Your task to perform on an android device: toggle improve location accuracy Image 0: 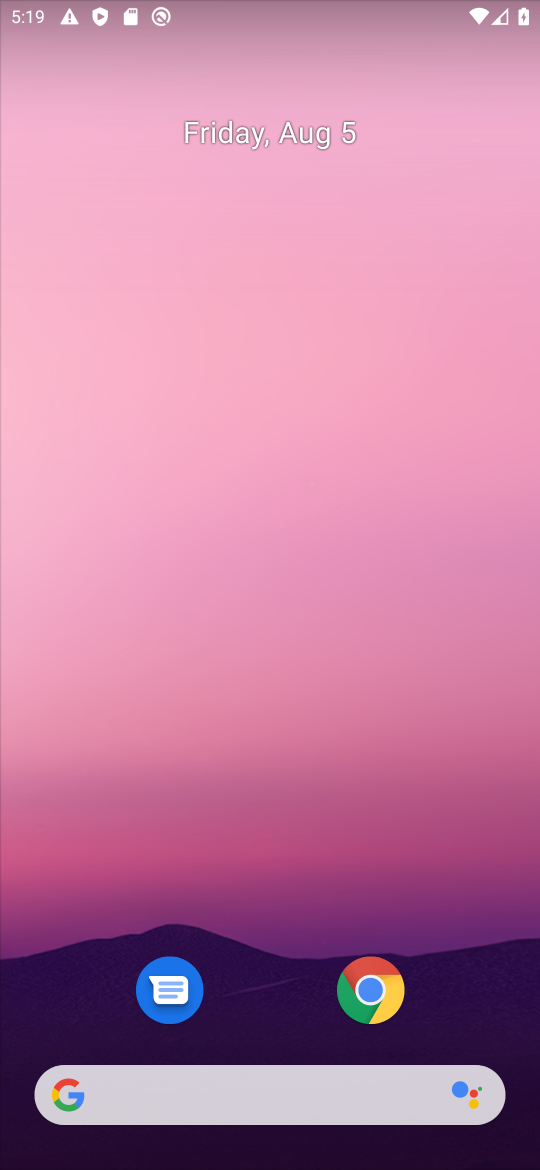
Step 0: press home button
Your task to perform on an android device: toggle improve location accuracy Image 1: 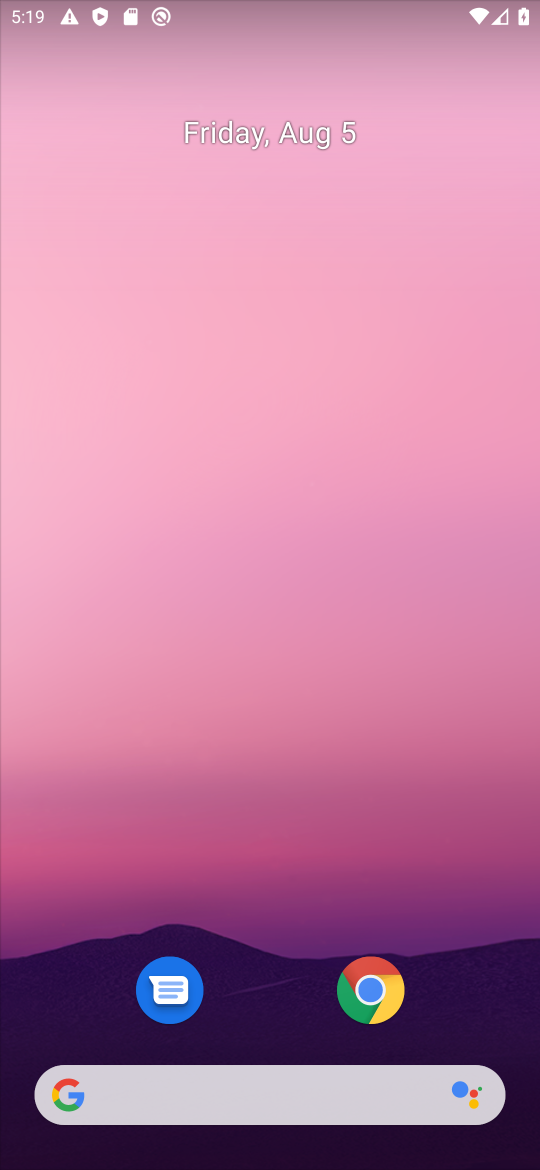
Step 1: drag from (245, 1001) to (245, 461)
Your task to perform on an android device: toggle improve location accuracy Image 2: 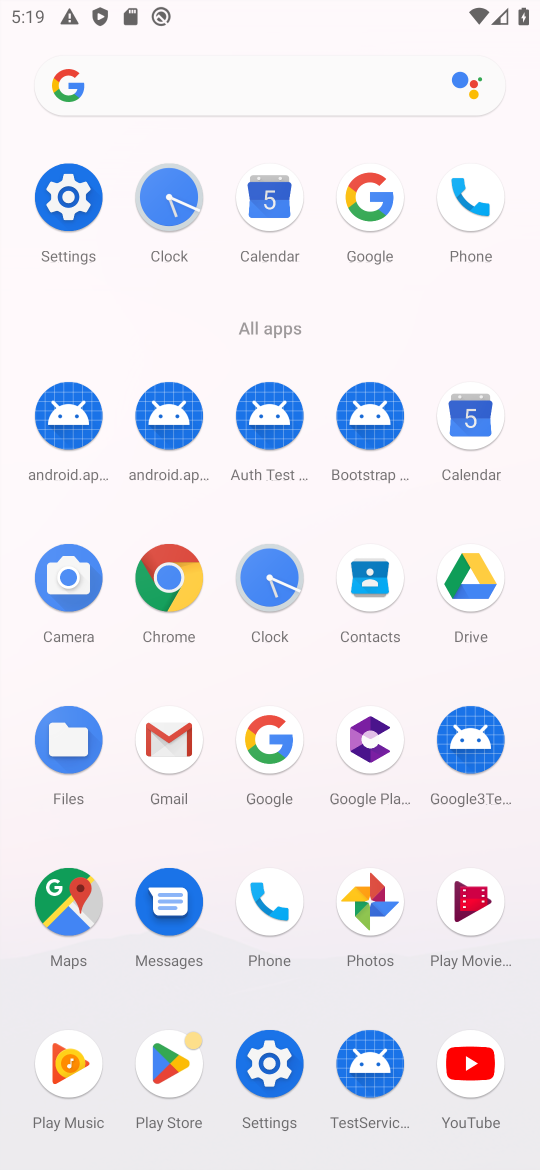
Step 2: click (73, 205)
Your task to perform on an android device: toggle improve location accuracy Image 3: 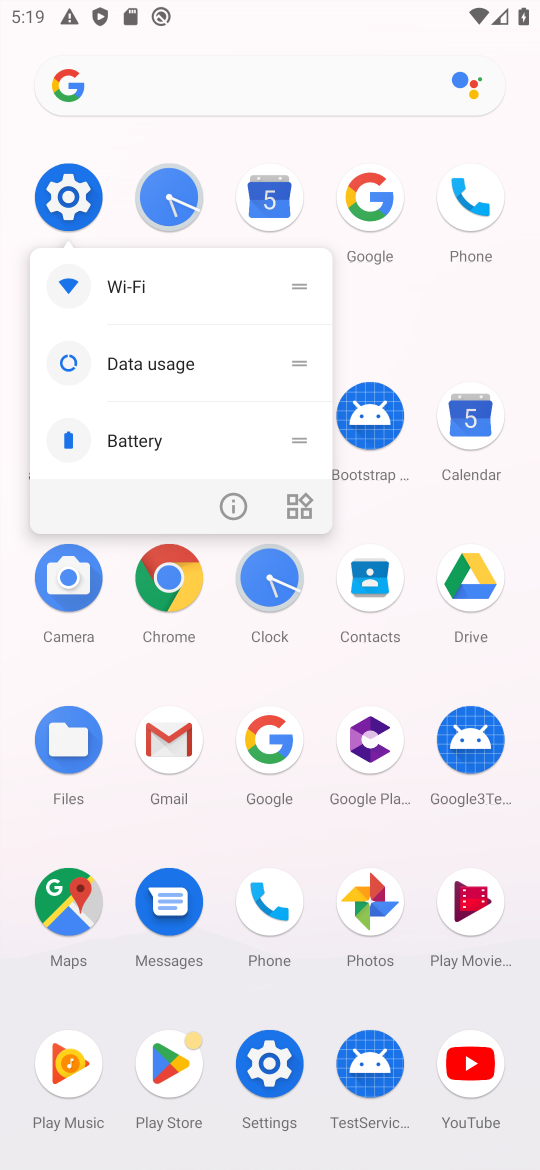
Step 3: click (72, 187)
Your task to perform on an android device: toggle improve location accuracy Image 4: 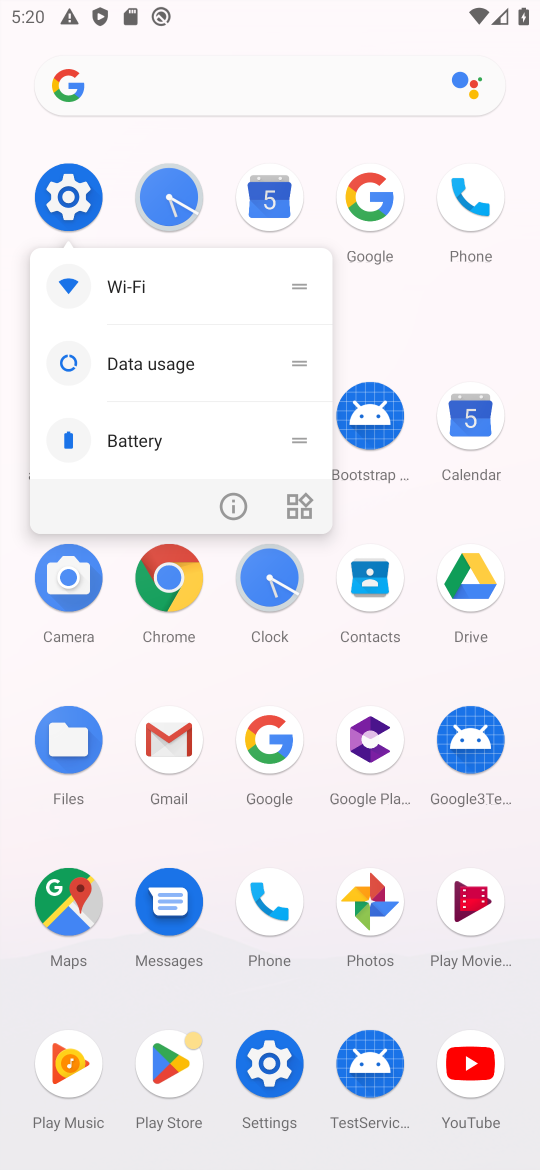
Step 4: click (66, 205)
Your task to perform on an android device: toggle improve location accuracy Image 5: 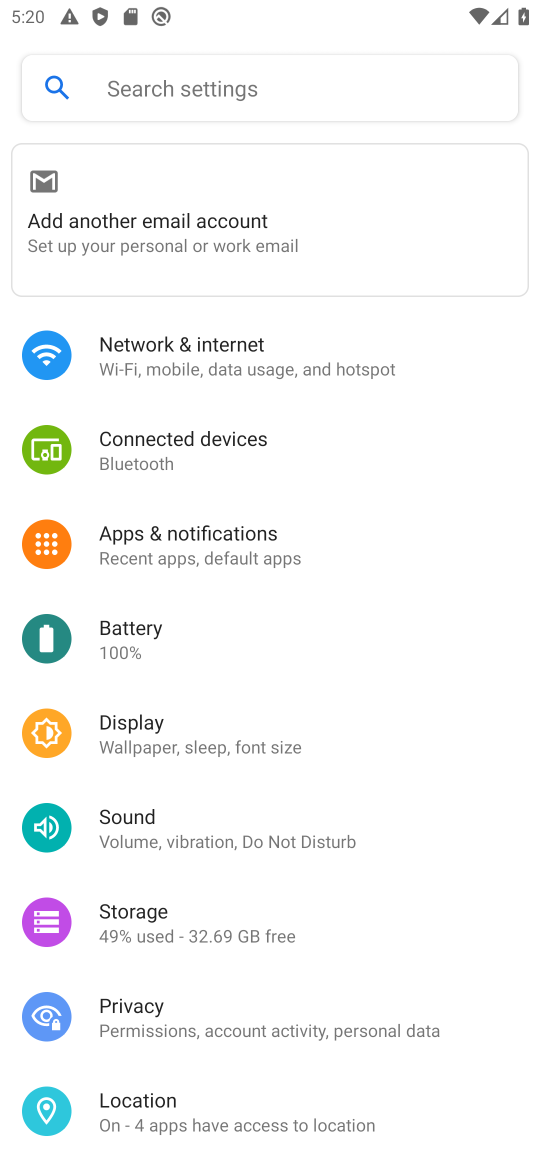
Step 5: click (156, 1116)
Your task to perform on an android device: toggle improve location accuracy Image 6: 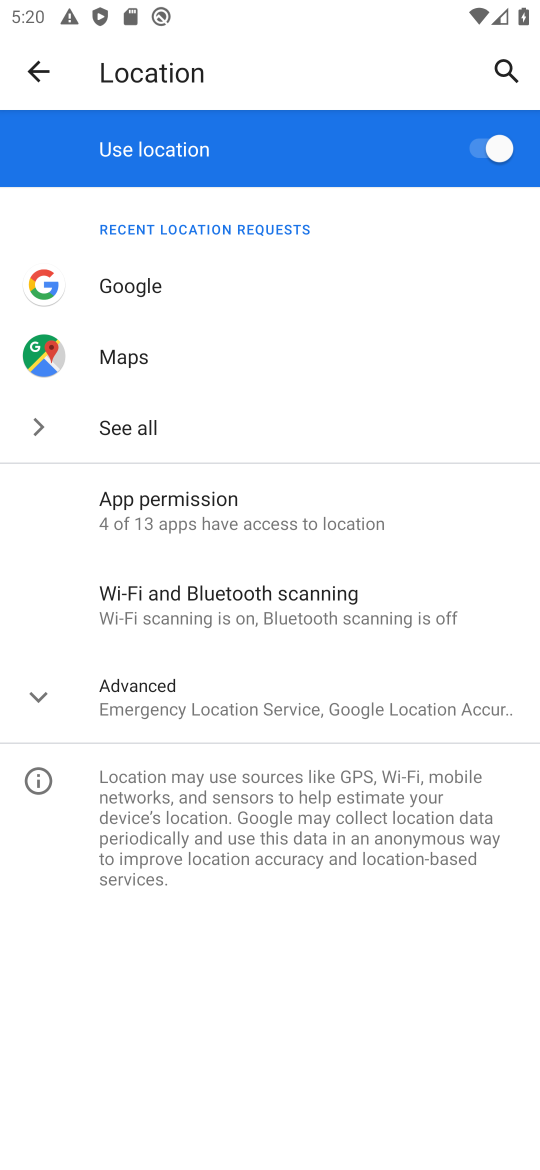
Step 6: click (193, 707)
Your task to perform on an android device: toggle improve location accuracy Image 7: 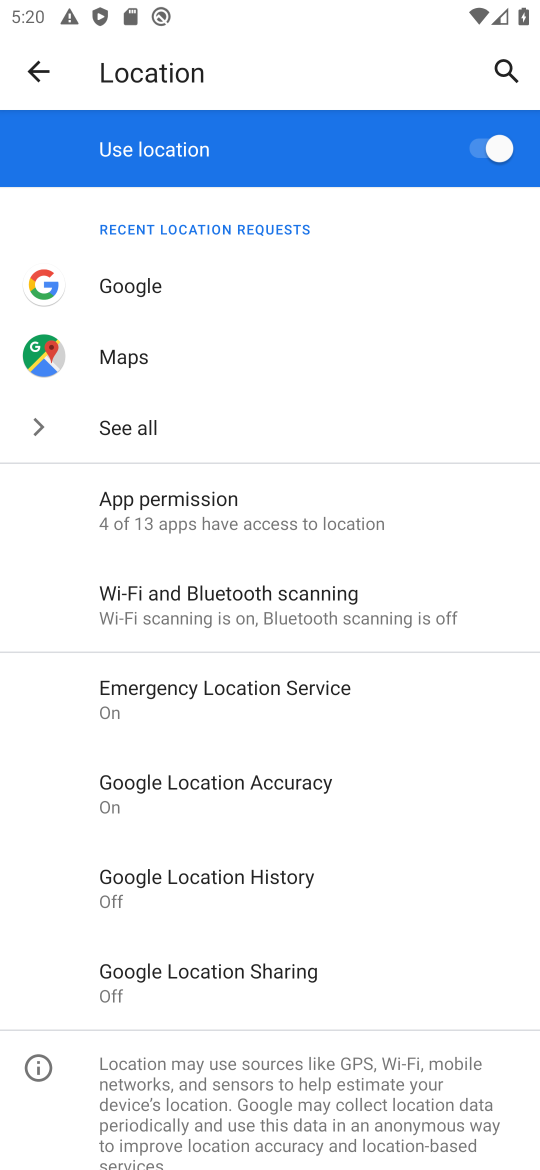
Step 7: click (237, 784)
Your task to perform on an android device: toggle improve location accuracy Image 8: 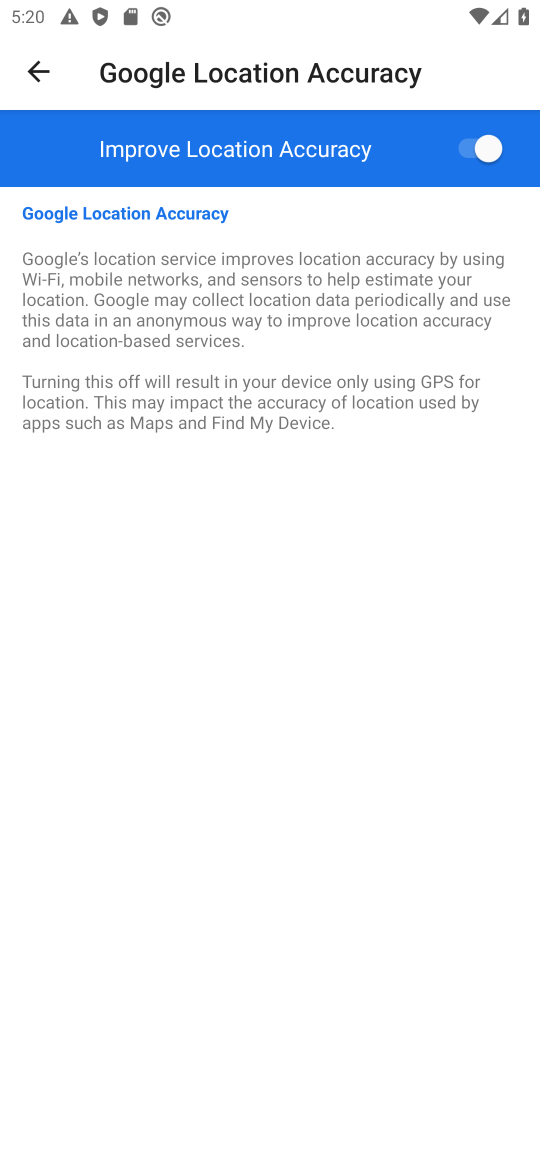
Step 8: click (472, 149)
Your task to perform on an android device: toggle improve location accuracy Image 9: 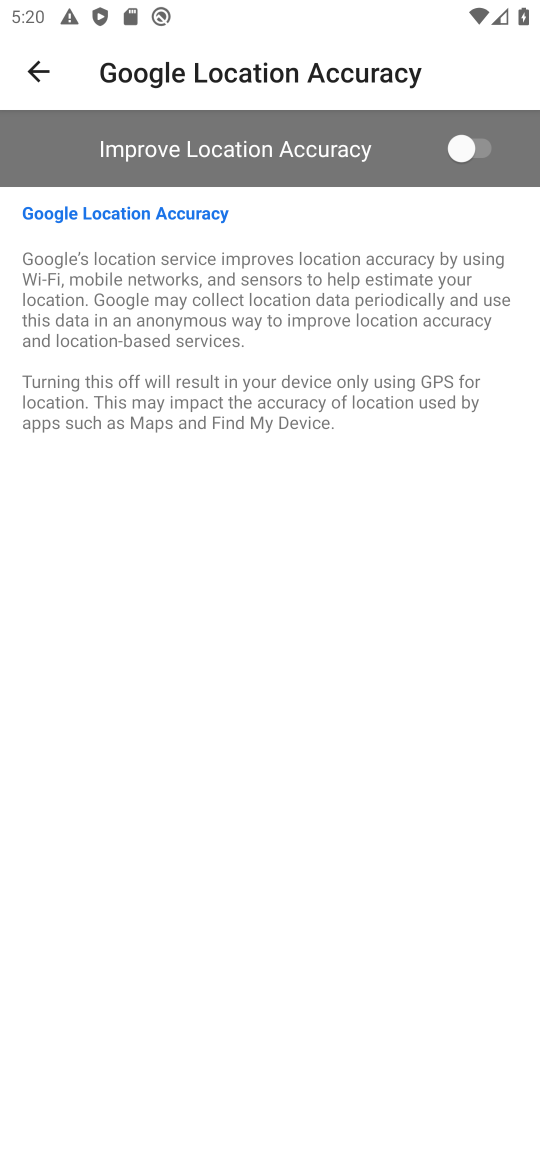
Step 9: task complete